Your task to perform on an android device: turn off priority inbox in the gmail app Image 0: 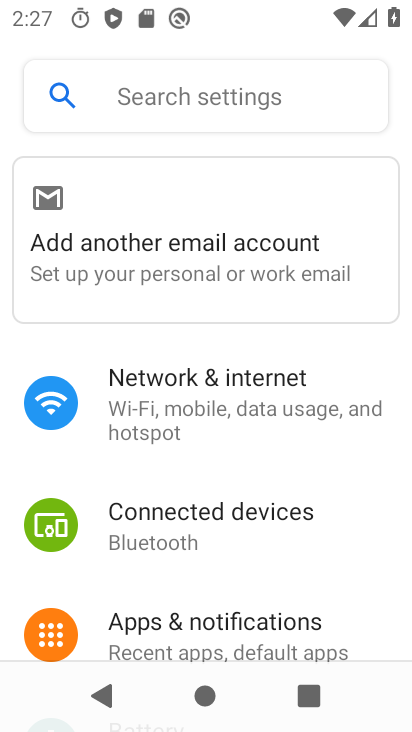
Step 0: press home button
Your task to perform on an android device: turn off priority inbox in the gmail app Image 1: 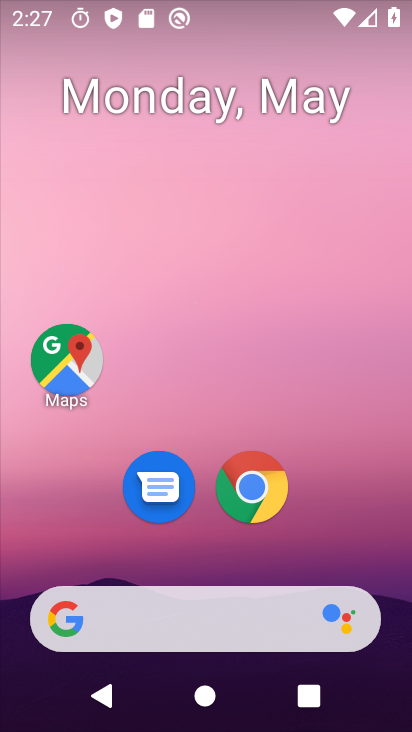
Step 1: drag from (191, 547) to (181, 12)
Your task to perform on an android device: turn off priority inbox in the gmail app Image 2: 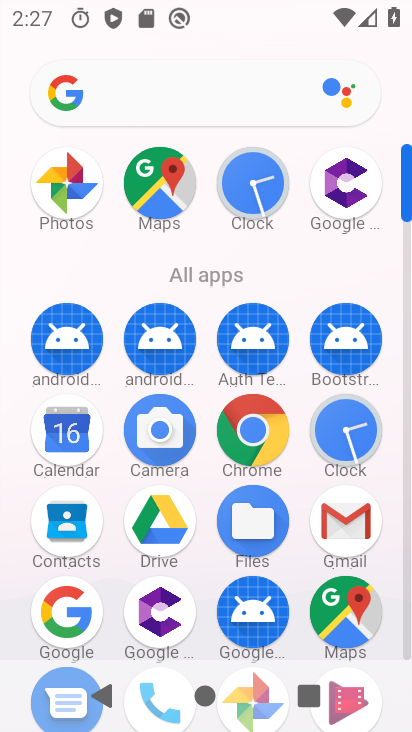
Step 2: click (349, 525)
Your task to perform on an android device: turn off priority inbox in the gmail app Image 3: 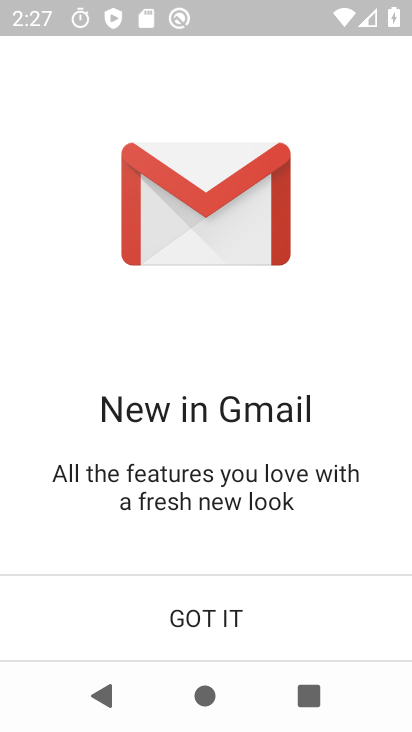
Step 3: click (224, 602)
Your task to perform on an android device: turn off priority inbox in the gmail app Image 4: 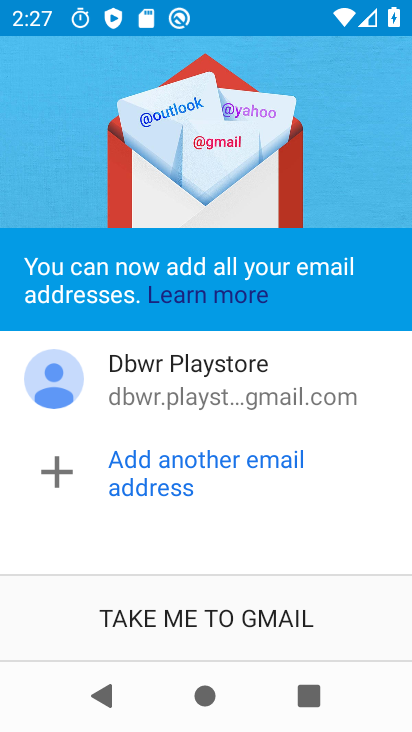
Step 4: click (224, 607)
Your task to perform on an android device: turn off priority inbox in the gmail app Image 5: 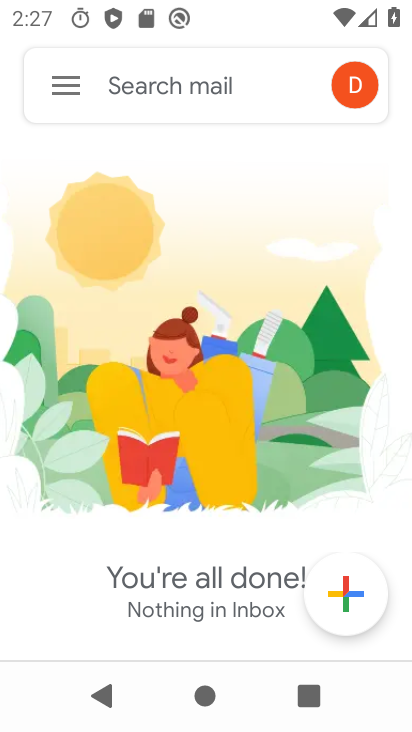
Step 5: click (59, 77)
Your task to perform on an android device: turn off priority inbox in the gmail app Image 6: 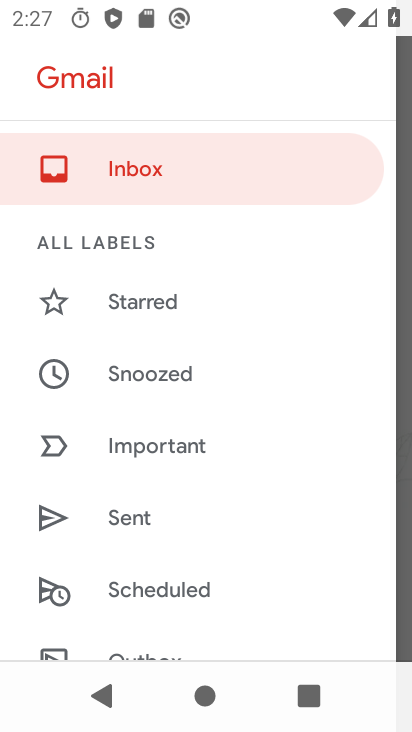
Step 6: drag from (186, 557) to (229, 8)
Your task to perform on an android device: turn off priority inbox in the gmail app Image 7: 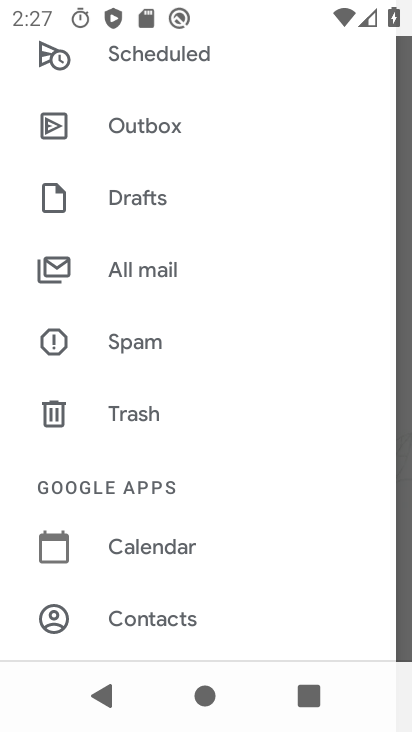
Step 7: drag from (177, 519) to (219, 205)
Your task to perform on an android device: turn off priority inbox in the gmail app Image 8: 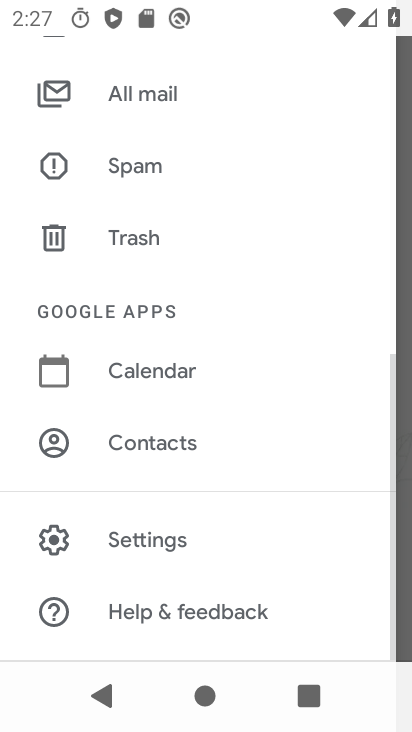
Step 8: click (146, 554)
Your task to perform on an android device: turn off priority inbox in the gmail app Image 9: 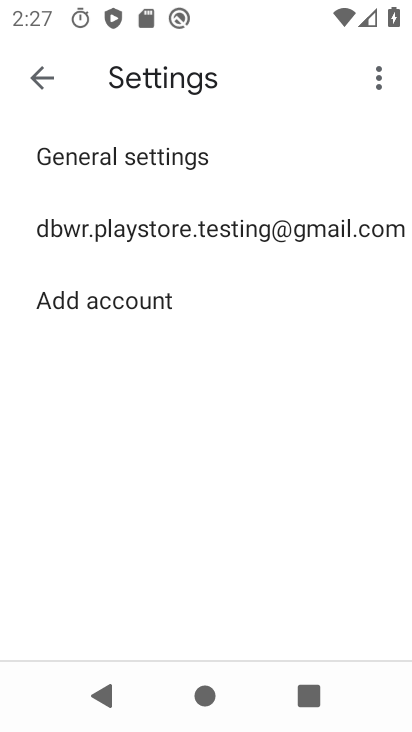
Step 9: click (108, 222)
Your task to perform on an android device: turn off priority inbox in the gmail app Image 10: 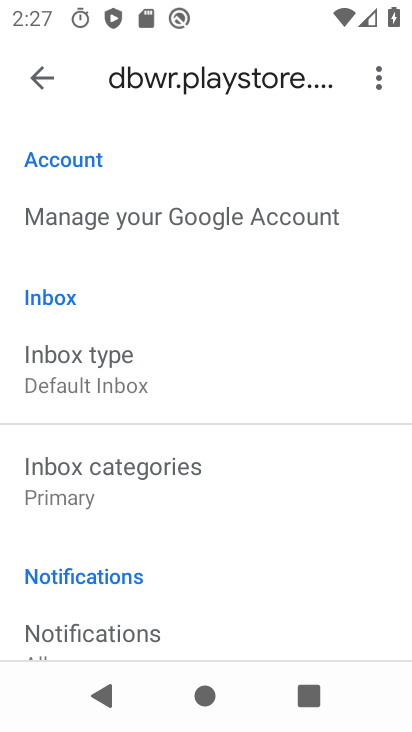
Step 10: click (104, 390)
Your task to perform on an android device: turn off priority inbox in the gmail app Image 11: 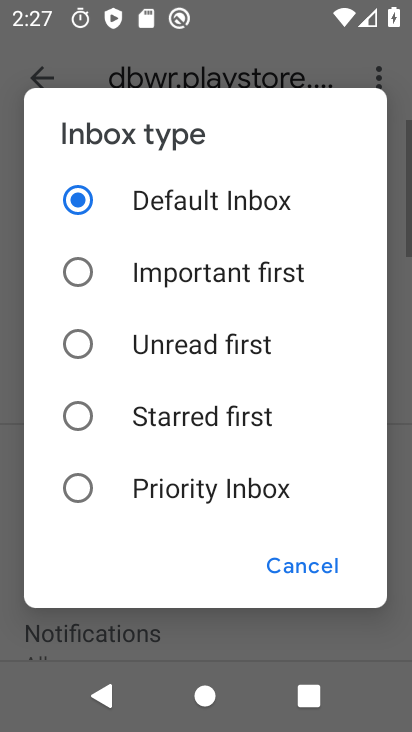
Step 11: click (102, 289)
Your task to perform on an android device: turn off priority inbox in the gmail app Image 12: 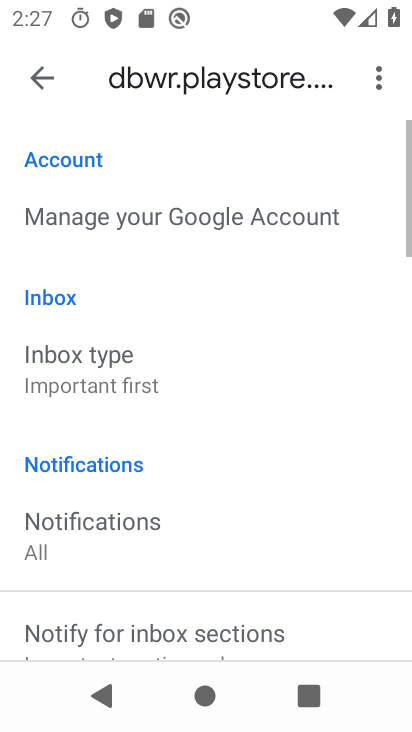
Step 12: task complete